Your task to perform on an android device: delete browsing data in the chrome app Image 0: 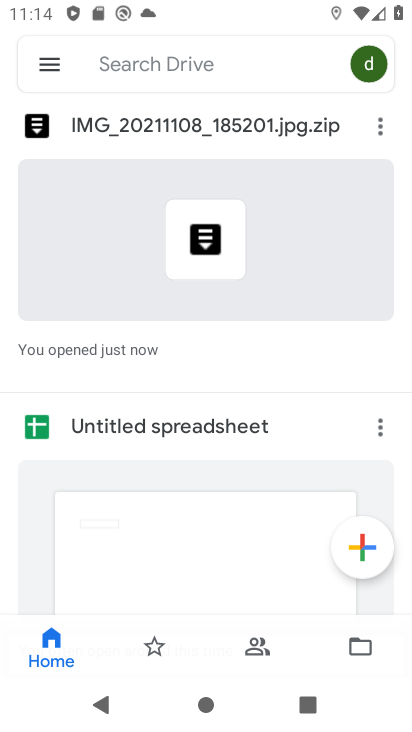
Step 0: press home button
Your task to perform on an android device: delete browsing data in the chrome app Image 1: 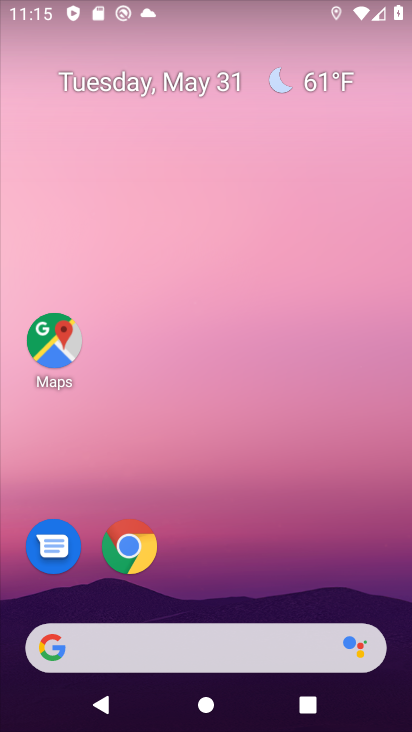
Step 1: click (143, 554)
Your task to perform on an android device: delete browsing data in the chrome app Image 2: 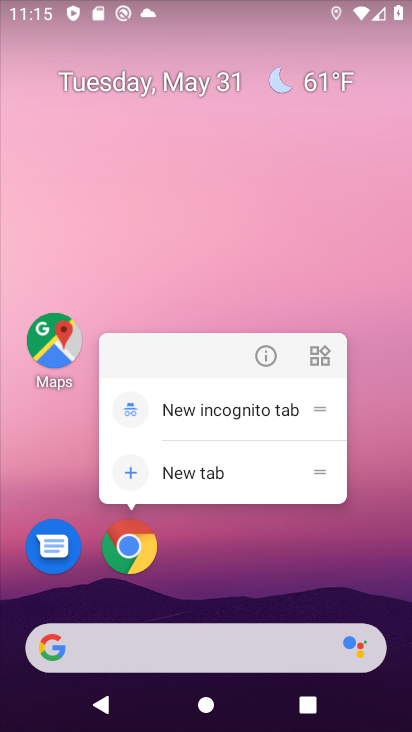
Step 2: click (145, 563)
Your task to perform on an android device: delete browsing data in the chrome app Image 3: 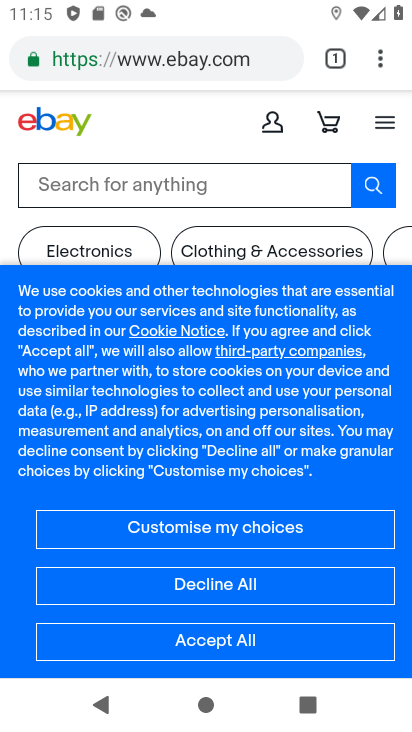
Step 3: drag from (386, 53) to (180, 328)
Your task to perform on an android device: delete browsing data in the chrome app Image 4: 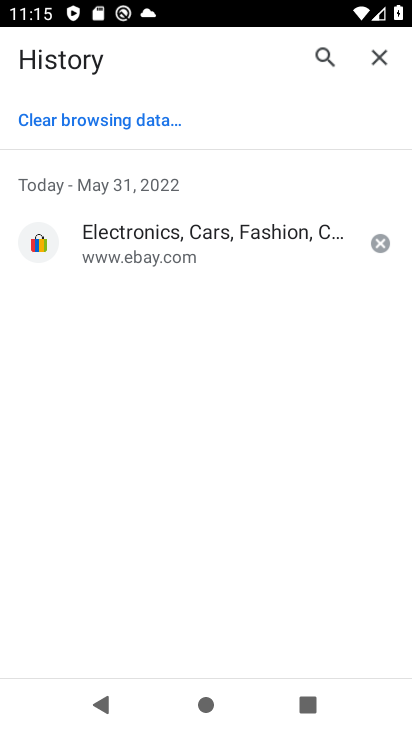
Step 4: click (87, 127)
Your task to perform on an android device: delete browsing data in the chrome app Image 5: 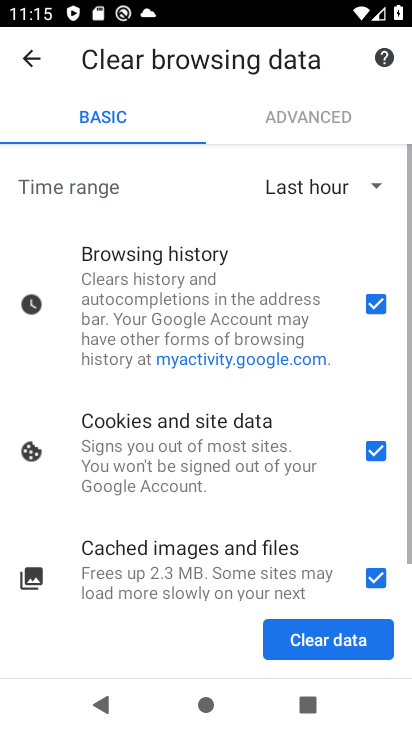
Step 5: click (354, 646)
Your task to perform on an android device: delete browsing data in the chrome app Image 6: 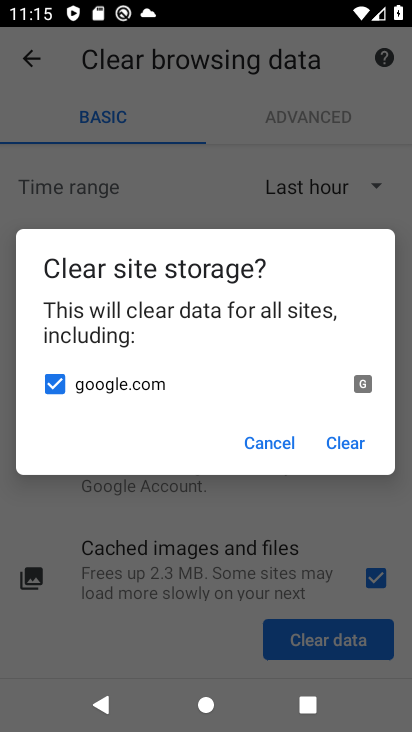
Step 6: click (352, 447)
Your task to perform on an android device: delete browsing data in the chrome app Image 7: 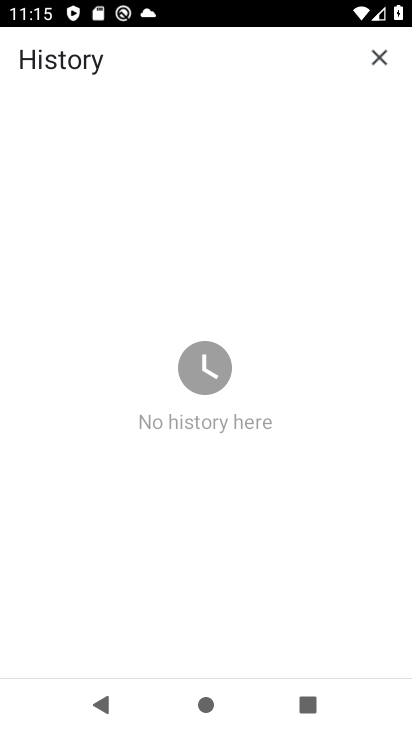
Step 7: task complete